Your task to perform on an android device: move an email to a new category in the gmail app Image 0: 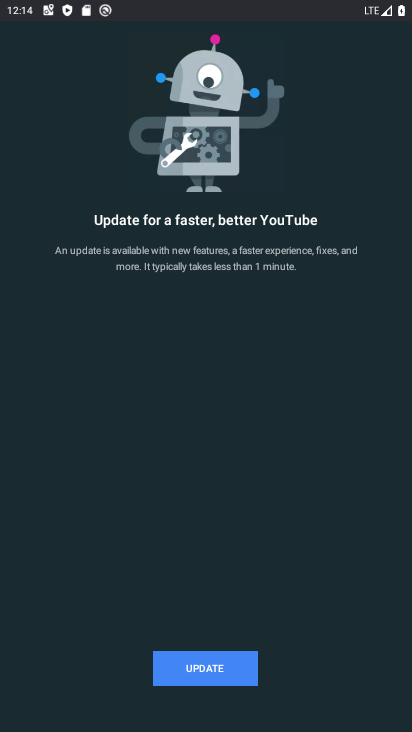
Step 0: press back button
Your task to perform on an android device: move an email to a new category in the gmail app Image 1: 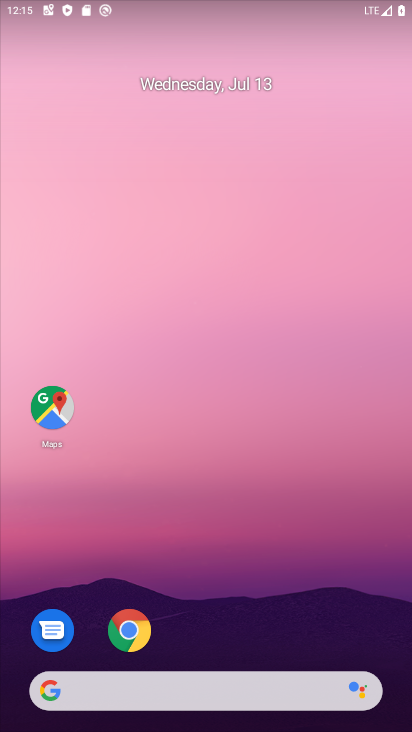
Step 1: drag from (368, 626) to (212, 38)
Your task to perform on an android device: move an email to a new category in the gmail app Image 2: 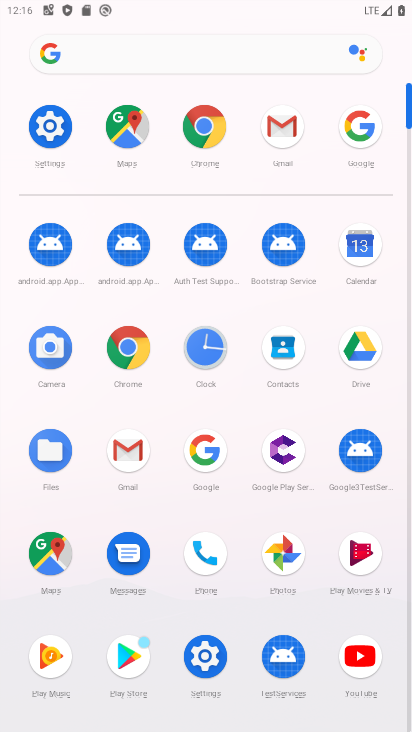
Step 2: click (129, 453)
Your task to perform on an android device: move an email to a new category in the gmail app Image 3: 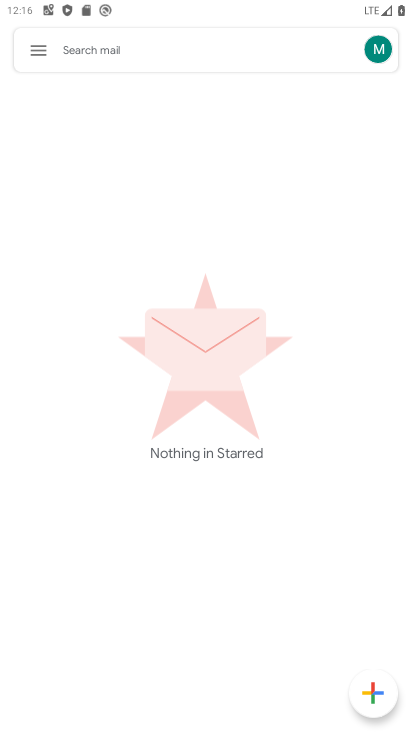
Step 3: task complete